Your task to perform on an android device: add a label to a message in the gmail app Image 0: 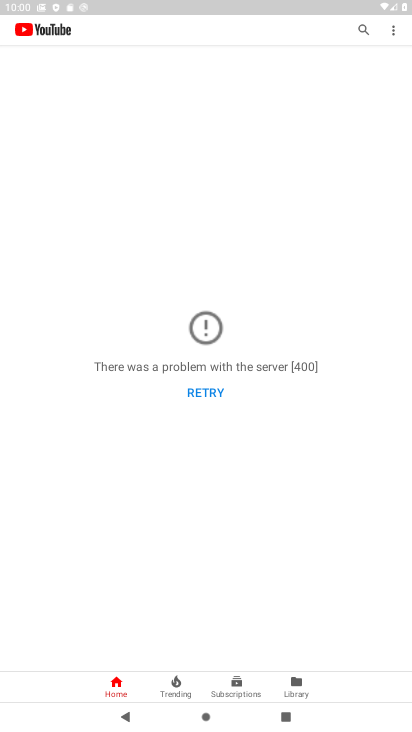
Step 0: press home button
Your task to perform on an android device: add a label to a message in the gmail app Image 1: 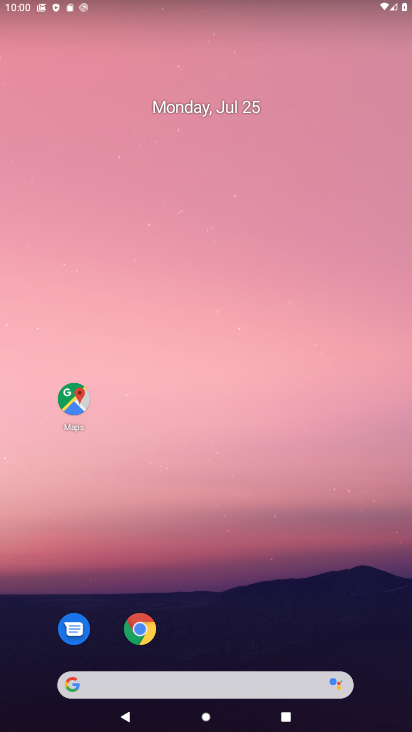
Step 1: drag from (273, 656) to (225, 23)
Your task to perform on an android device: add a label to a message in the gmail app Image 2: 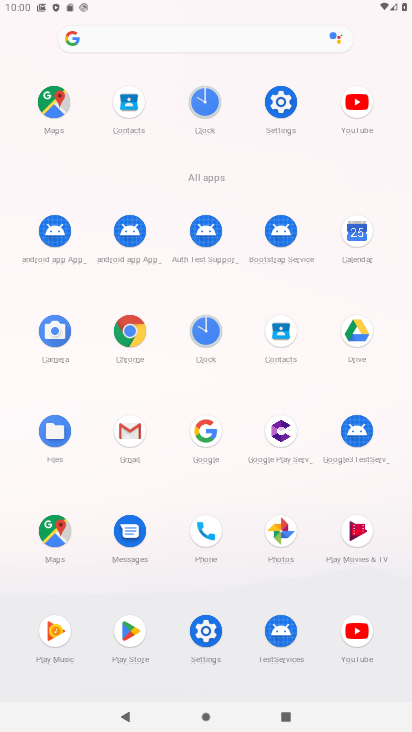
Step 2: click (123, 440)
Your task to perform on an android device: add a label to a message in the gmail app Image 3: 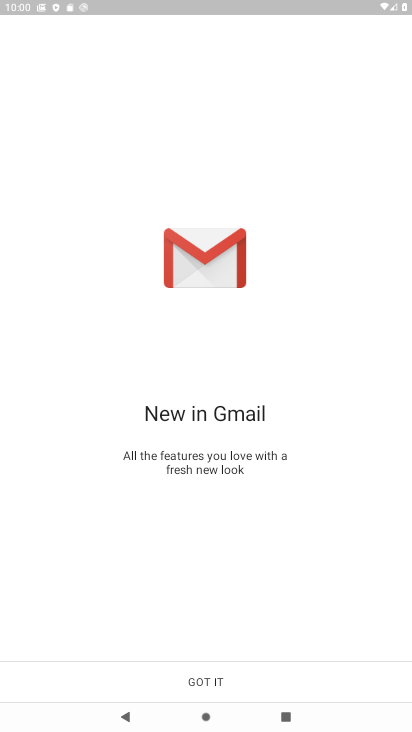
Step 3: click (205, 684)
Your task to perform on an android device: add a label to a message in the gmail app Image 4: 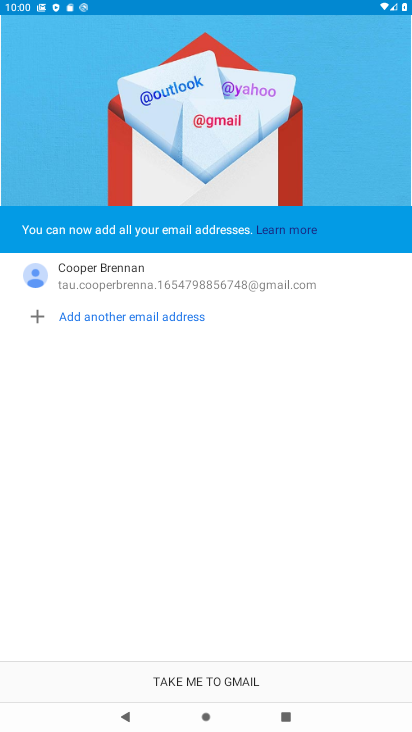
Step 4: click (205, 684)
Your task to perform on an android device: add a label to a message in the gmail app Image 5: 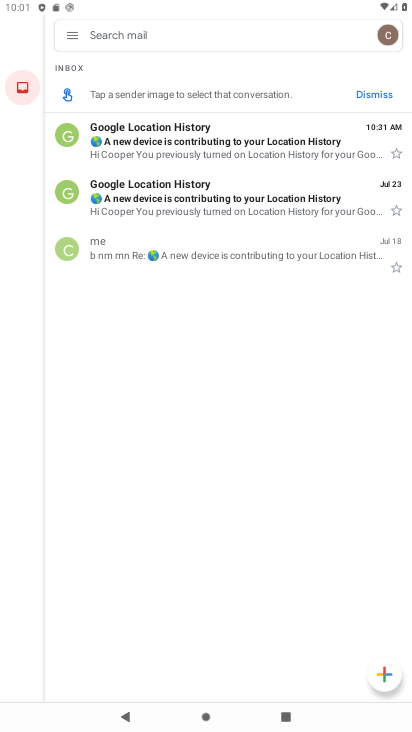
Step 5: click (153, 201)
Your task to perform on an android device: add a label to a message in the gmail app Image 6: 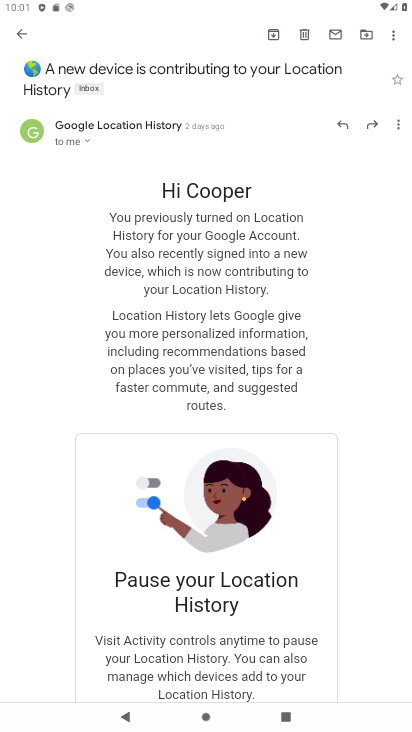
Step 6: click (18, 36)
Your task to perform on an android device: add a label to a message in the gmail app Image 7: 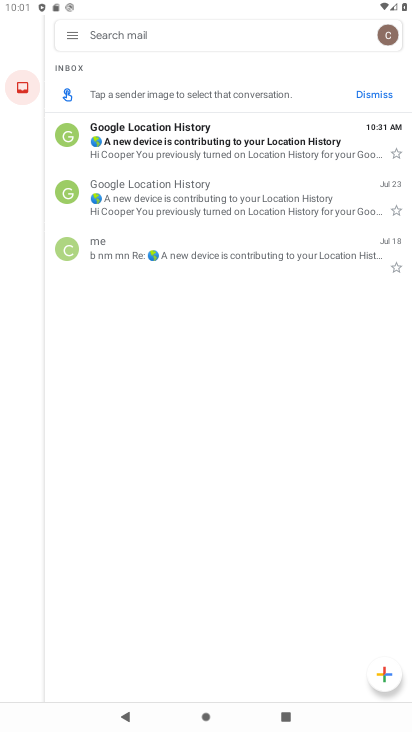
Step 7: click (70, 32)
Your task to perform on an android device: add a label to a message in the gmail app Image 8: 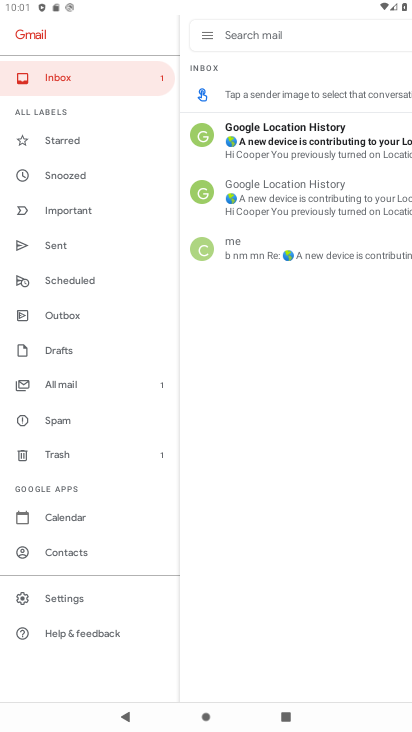
Step 8: click (60, 384)
Your task to perform on an android device: add a label to a message in the gmail app Image 9: 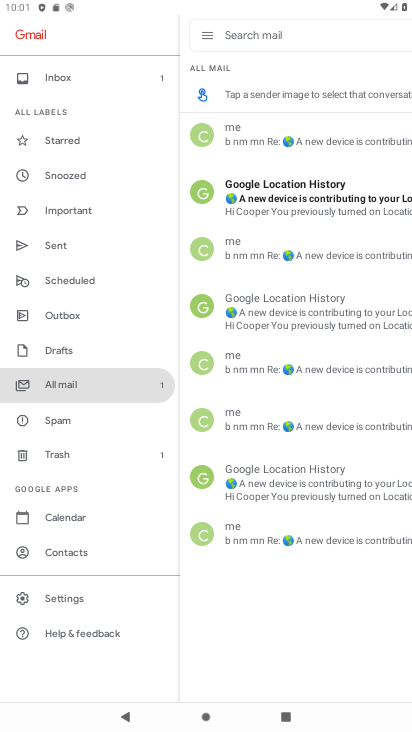
Step 9: click (205, 39)
Your task to perform on an android device: add a label to a message in the gmail app Image 10: 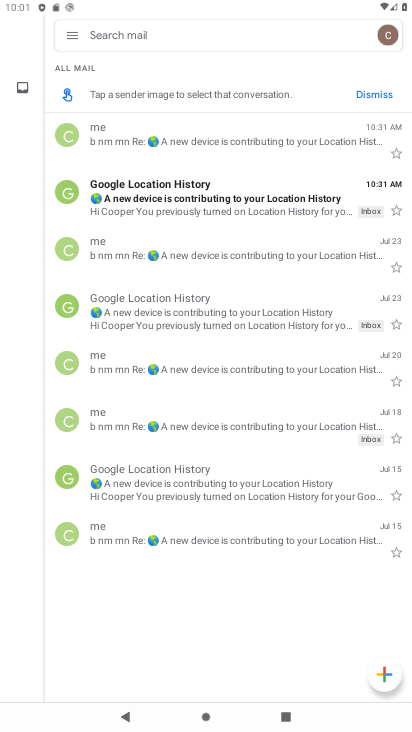
Step 10: click (170, 255)
Your task to perform on an android device: add a label to a message in the gmail app Image 11: 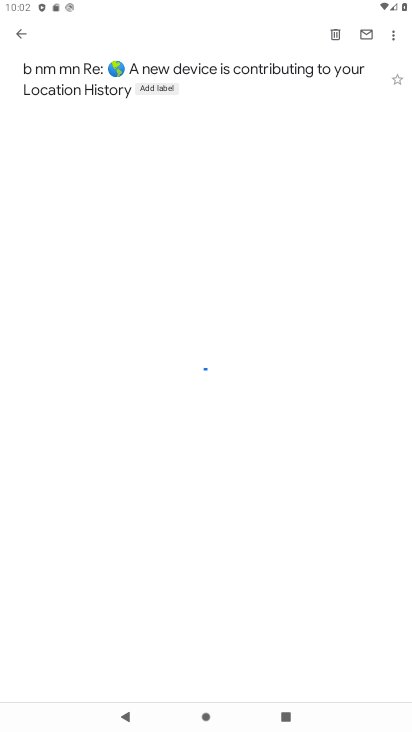
Step 11: click (164, 92)
Your task to perform on an android device: add a label to a message in the gmail app Image 12: 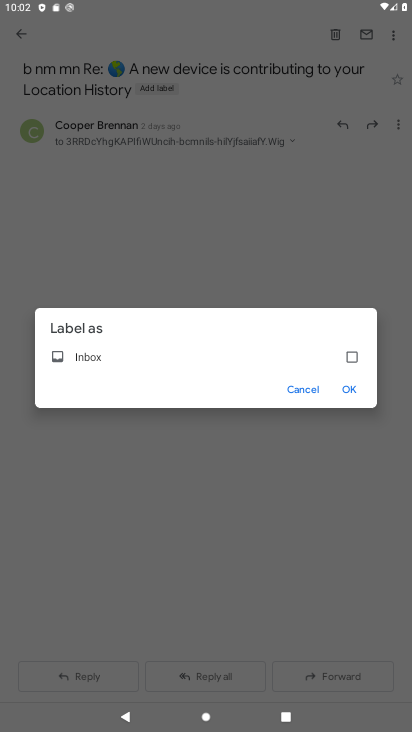
Step 12: click (349, 356)
Your task to perform on an android device: add a label to a message in the gmail app Image 13: 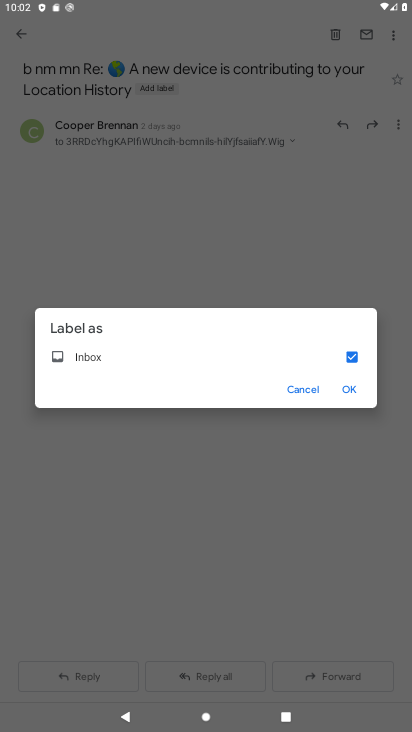
Step 13: click (350, 394)
Your task to perform on an android device: add a label to a message in the gmail app Image 14: 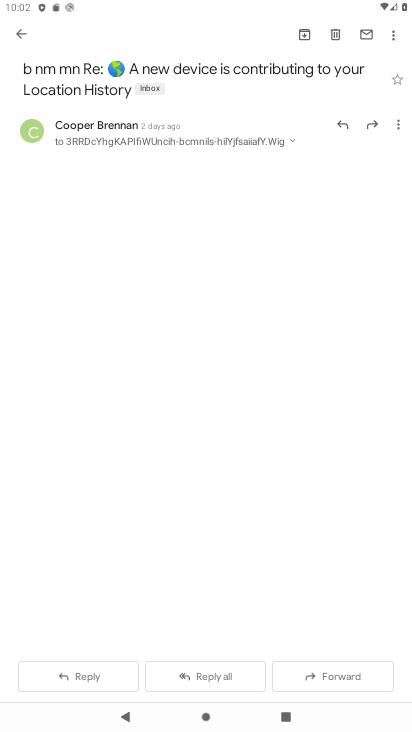
Step 14: task complete